Your task to perform on an android device: change timer sound Image 0: 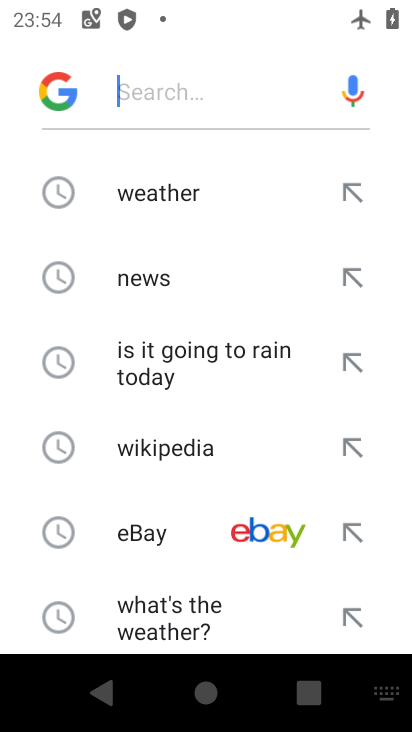
Step 0: press home button
Your task to perform on an android device: change timer sound Image 1: 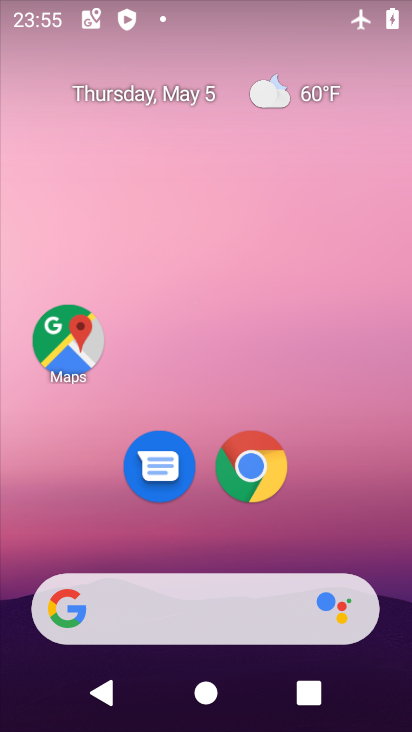
Step 1: drag from (244, 590) to (286, 215)
Your task to perform on an android device: change timer sound Image 2: 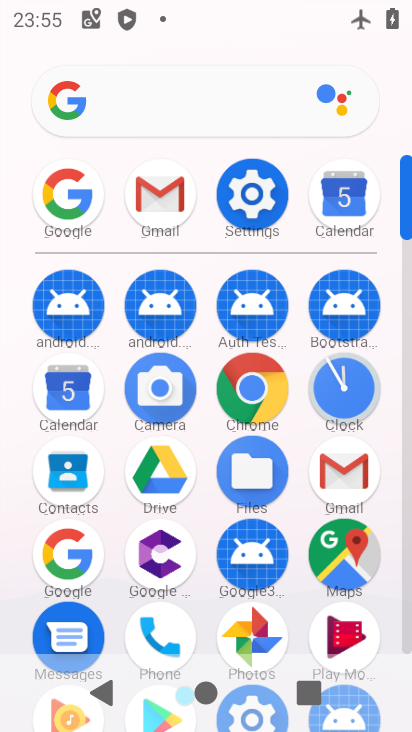
Step 2: click (353, 387)
Your task to perform on an android device: change timer sound Image 3: 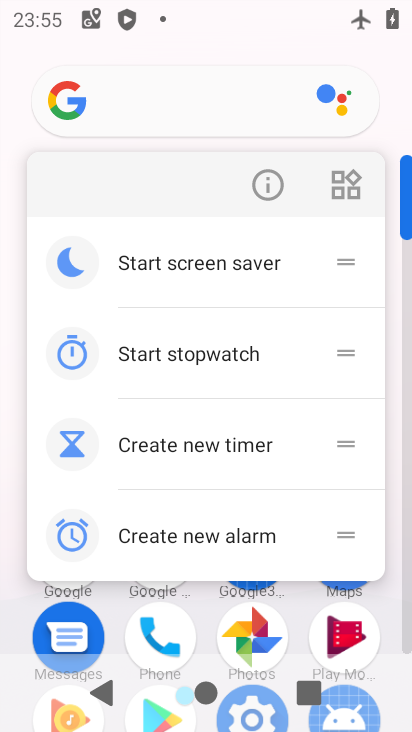
Step 3: click (386, 624)
Your task to perform on an android device: change timer sound Image 4: 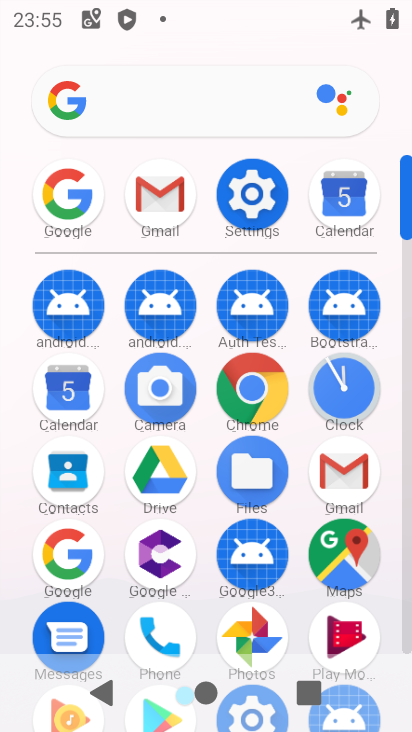
Step 4: click (381, 607)
Your task to perform on an android device: change timer sound Image 5: 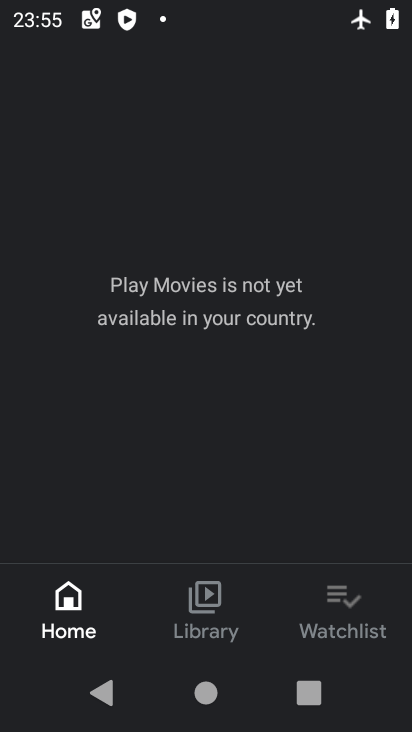
Step 5: press back button
Your task to perform on an android device: change timer sound Image 6: 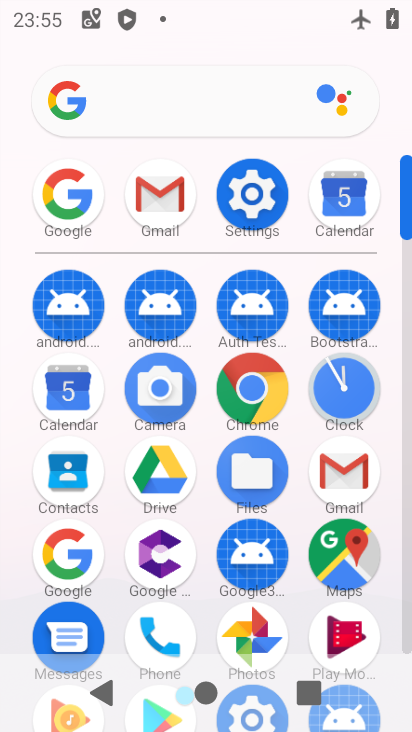
Step 6: click (336, 396)
Your task to perform on an android device: change timer sound Image 7: 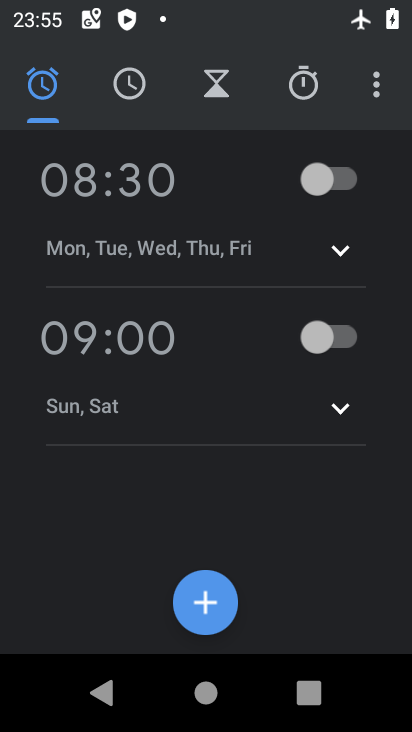
Step 7: click (373, 87)
Your task to perform on an android device: change timer sound Image 8: 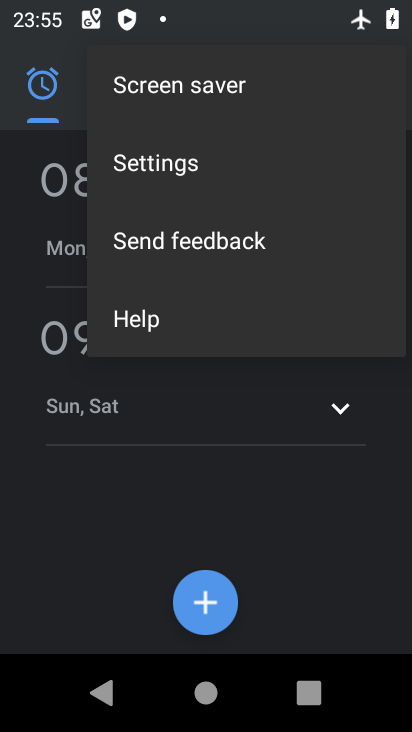
Step 8: click (149, 167)
Your task to perform on an android device: change timer sound Image 9: 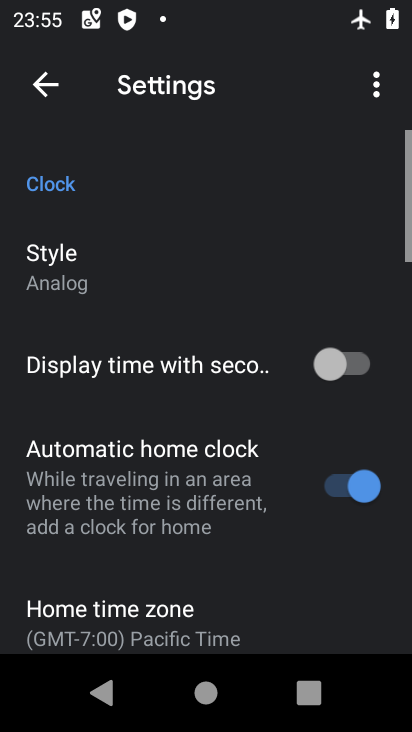
Step 9: drag from (163, 613) to (189, 274)
Your task to perform on an android device: change timer sound Image 10: 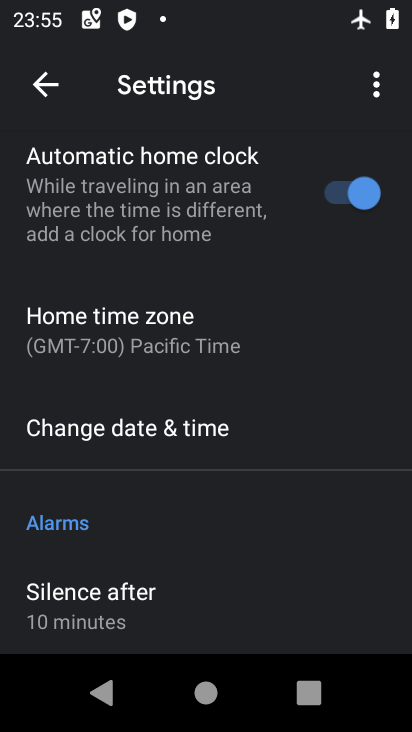
Step 10: drag from (138, 602) to (169, 331)
Your task to perform on an android device: change timer sound Image 11: 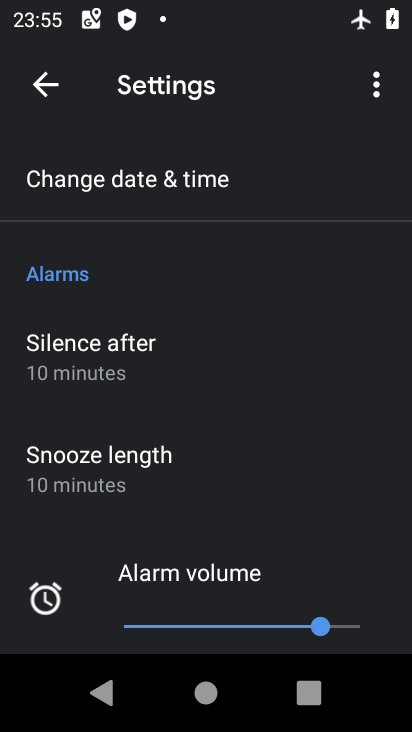
Step 11: drag from (146, 590) to (206, 218)
Your task to perform on an android device: change timer sound Image 12: 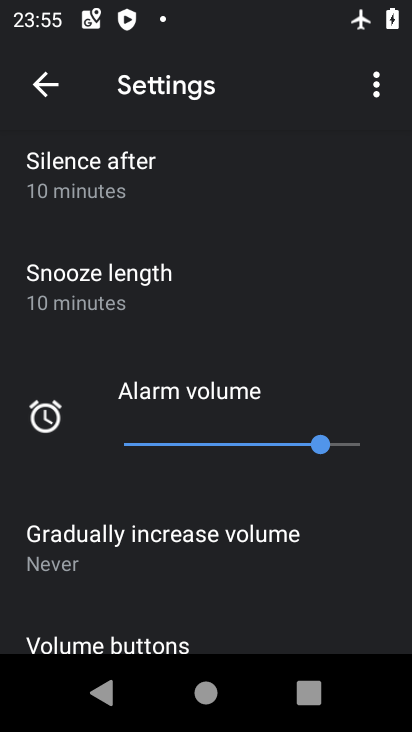
Step 12: drag from (88, 601) to (183, 283)
Your task to perform on an android device: change timer sound Image 13: 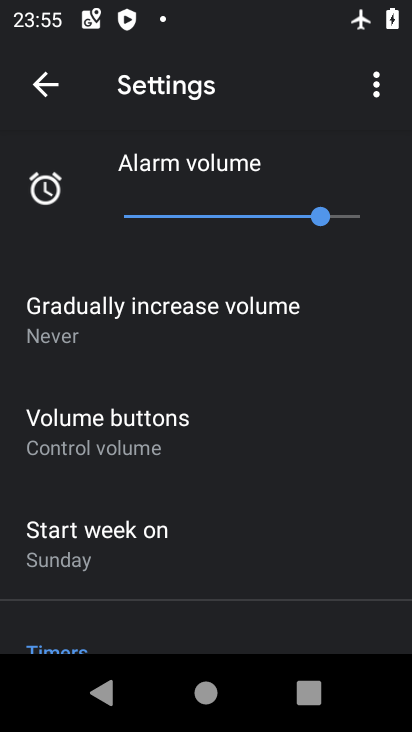
Step 13: drag from (125, 615) to (203, 238)
Your task to perform on an android device: change timer sound Image 14: 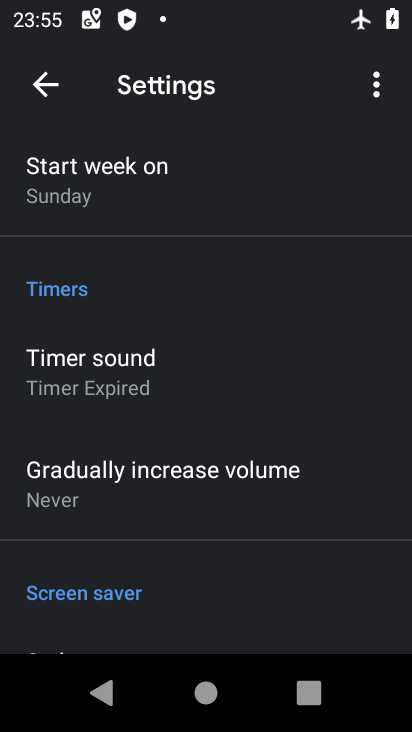
Step 14: click (98, 379)
Your task to perform on an android device: change timer sound Image 15: 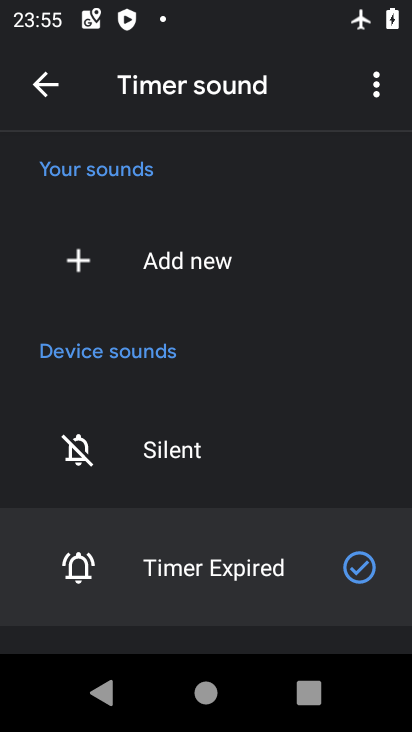
Step 15: drag from (166, 496) to (209, 288)
Your task to perform on an android device: change timer sound Image 16: 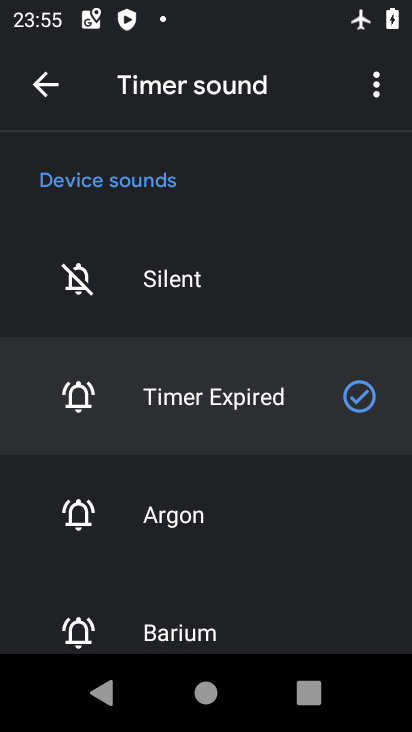
Step 16: click (173, 527)
Your task to perform on an android device: change timer sound Image 17: 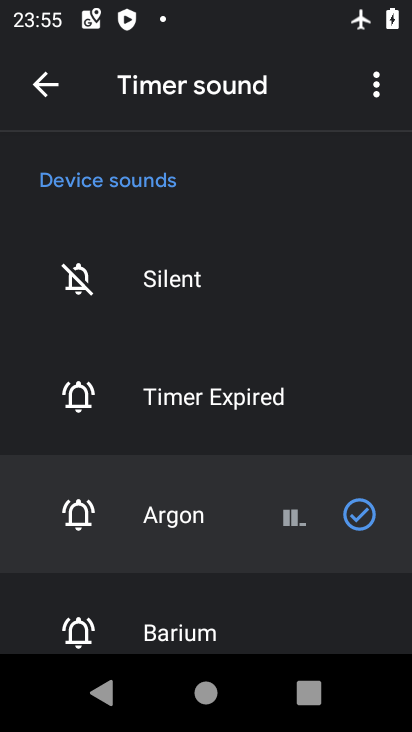
Step 17: task complete